Your task to perform on an android device: clear history in the chrome app Image 0: 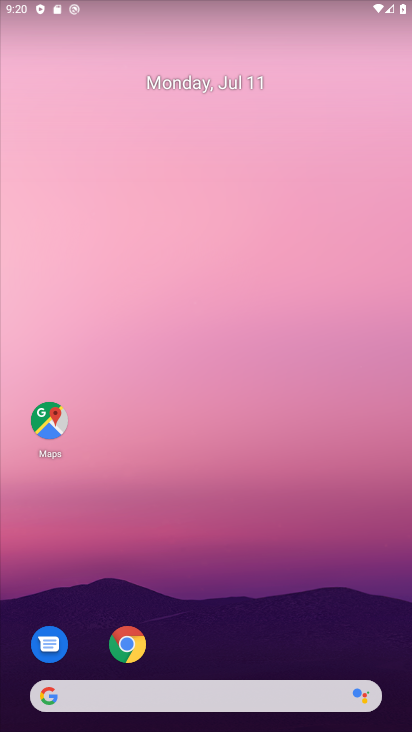
Step 0: press home button
Your task to perform on an android device: clear history in the chrome app Image 1: 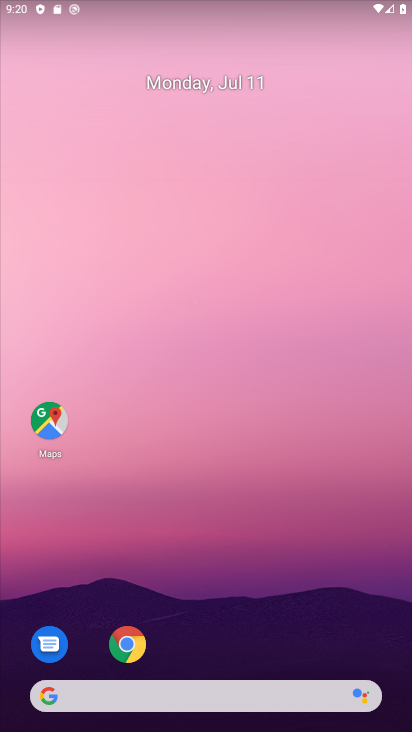
Step 1: click (125, 640)
Your task to perform on an android device: clear history in the chrome app Image 2: 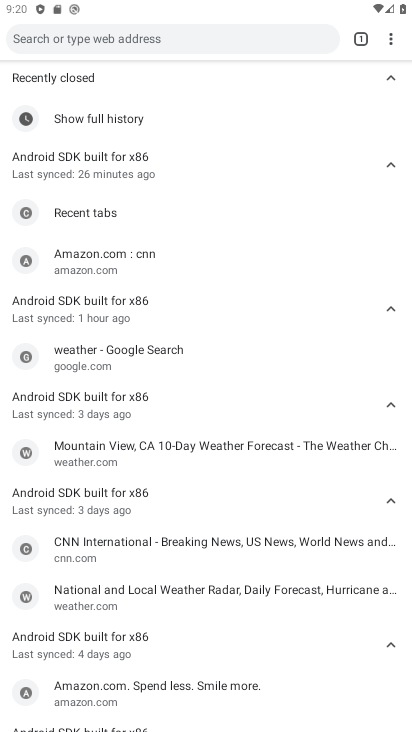
Step 2: click (390, 38)
Your task to perform on an android device: clear history in the chrome app Image 3: 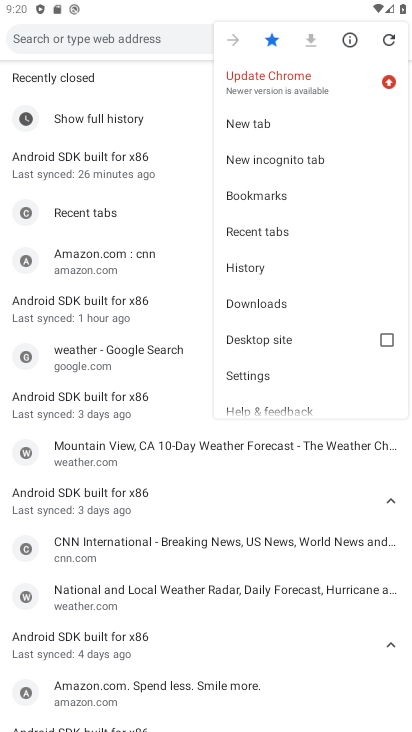
Step 3: click (269, 263)
Your task to perform on an android device: clear history in the chrome app Image 4: 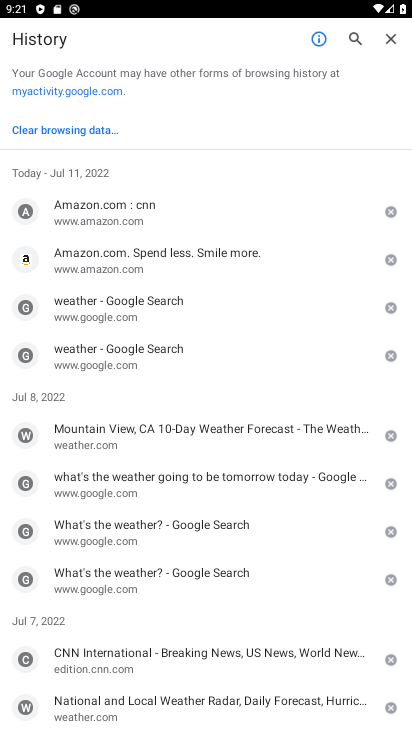
Step 4: click (74, 131)
Your task to perform on an android device: clear history in the chrome app Image 5: 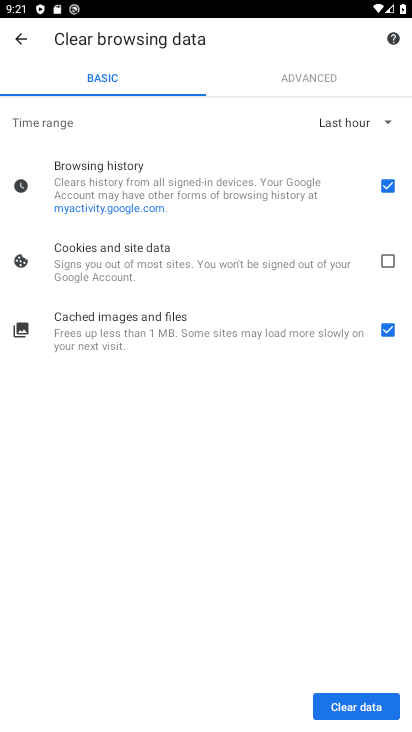
Step 5: click (387, 253)
Your task to perform on an android device: clear history in the chrome app Image 6: 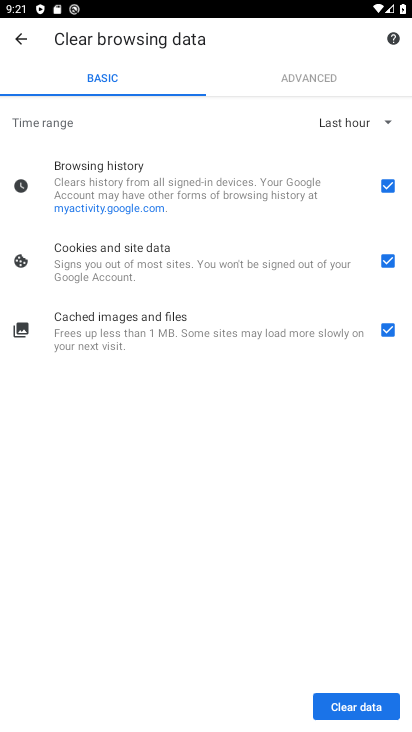
Step 6: click (382, 125)
Your task to perform on an android device: clear history in the chrome app Image 7: 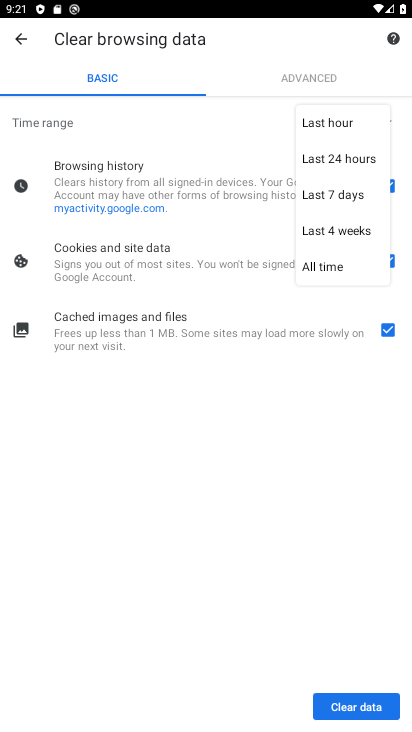
Step 7: click (333, 263)
Your task to perform on an android device: clear history in the chrome app Image 8: 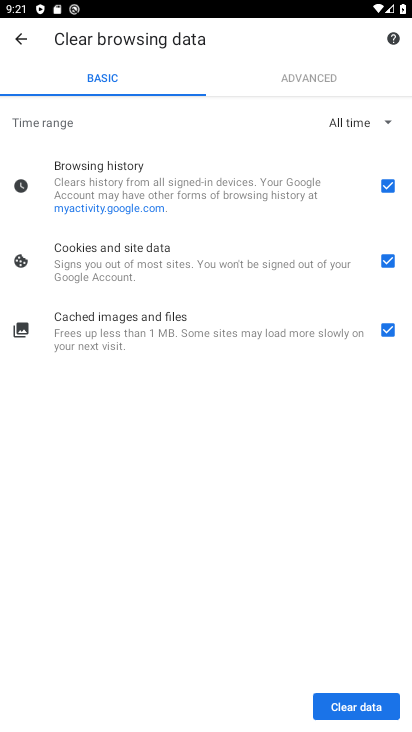
Step 8: click (358, 706)
Your task to perform on an android device: clear history in the chrome app Image 9: 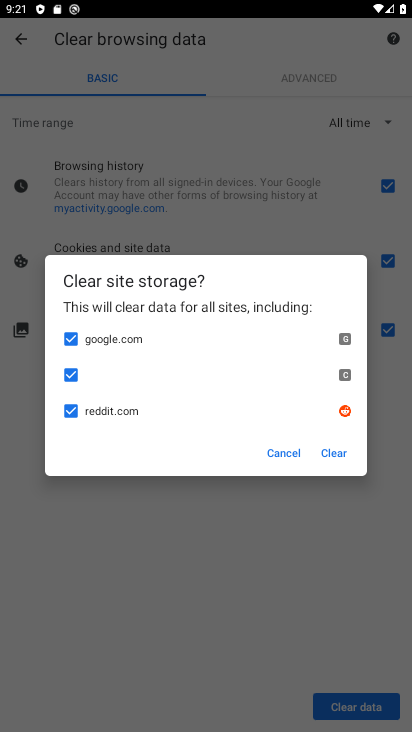
Step 9: click (335, 452)
Your task to perform on an android device: clear history in the chrome app Image 10: 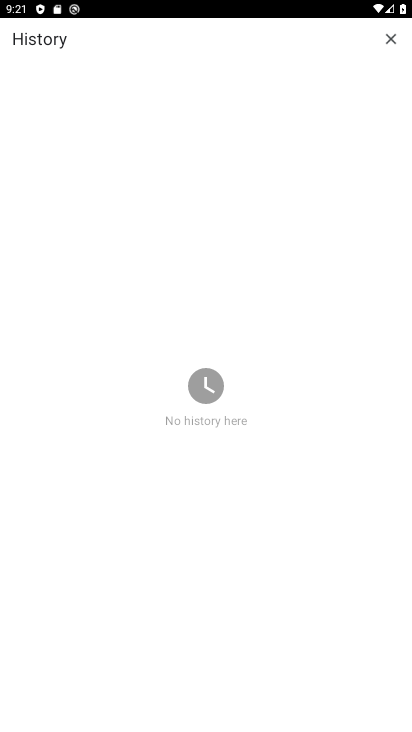
Step 10: task complete